Your task to perform on an android device: turn on javascript in the chrome app Image 0: 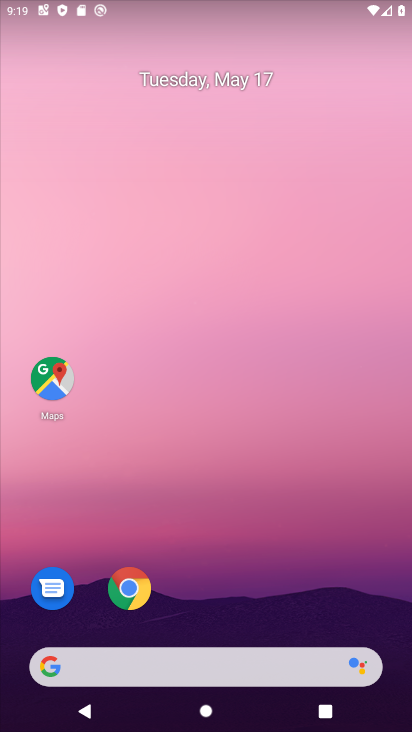
Step 0: click (145, 601)
Your task to perform on an android device: turn on javascript in the chrome app Image 1: 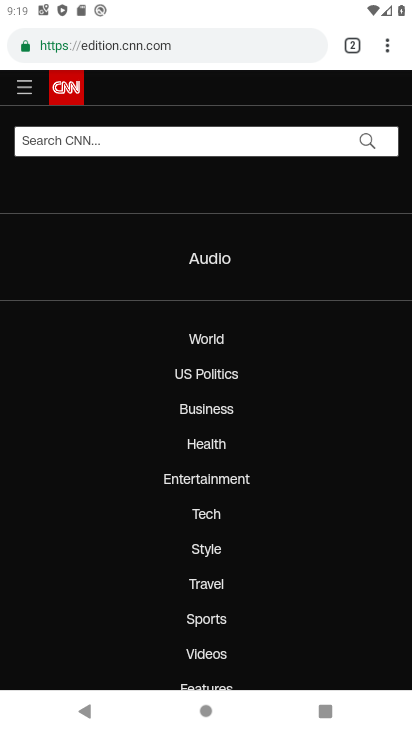
Step 1: click (385, 46)
Your task to perform on an android device: turn on javascript in the chrome app Image 2: 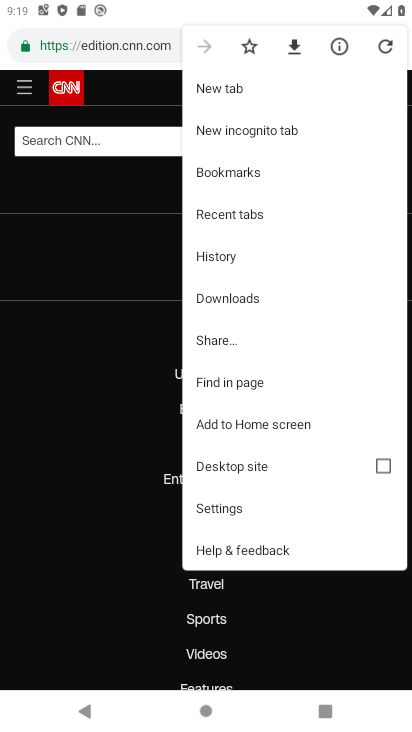
Step 2: click (239, 516)
Your task to perform on an android device: turn on javascript in the chrome app Image 3: 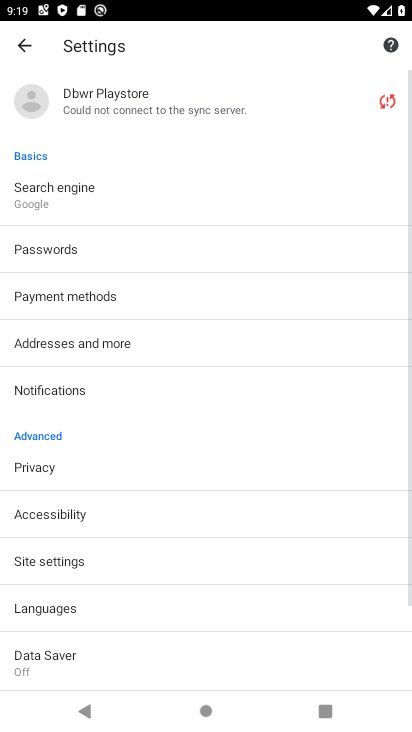
Step 3: click (66, 561)
Your task to perform on an android device: turn on javascript in the chrome app Image 4: 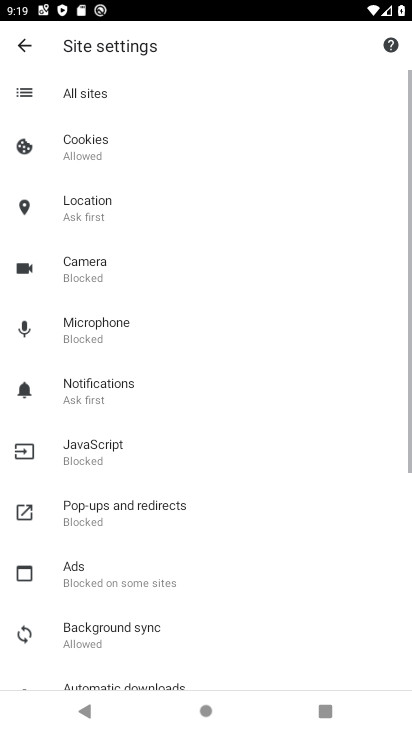
Step 4: click (115, 478)
Your task to perform on an android device: turn on javascript in the chrome app Image 5: 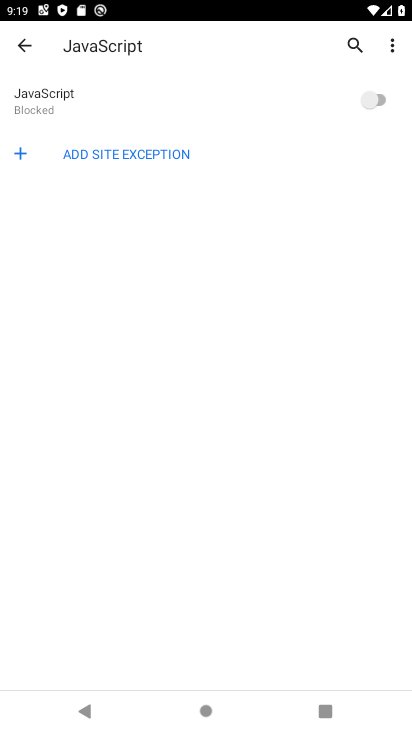
Step 5: click (377, 95)
Your task to perform on an android device: turn on javascript in the chrome app Image 6: 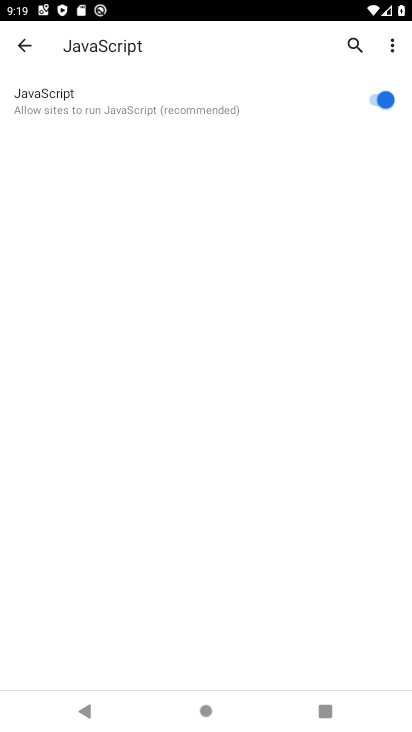
Step 6: task complete